Your task to perform on an android device: Open Youtube and go to "Your channel" Image 0: 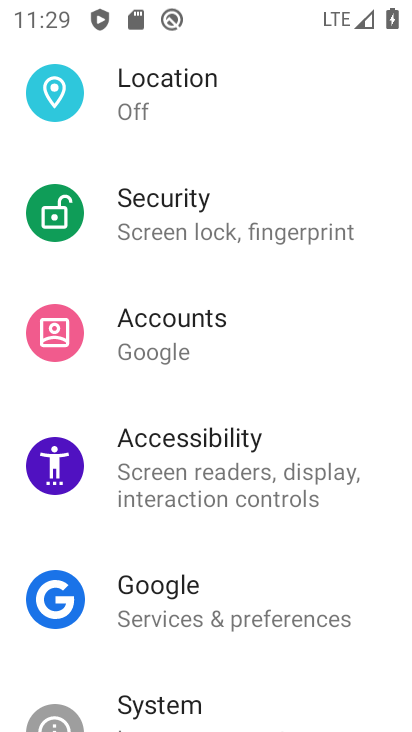
Step 0: press home button
Your task to perform on an android device: Open Youtube and go to "Your channel" Image 1: 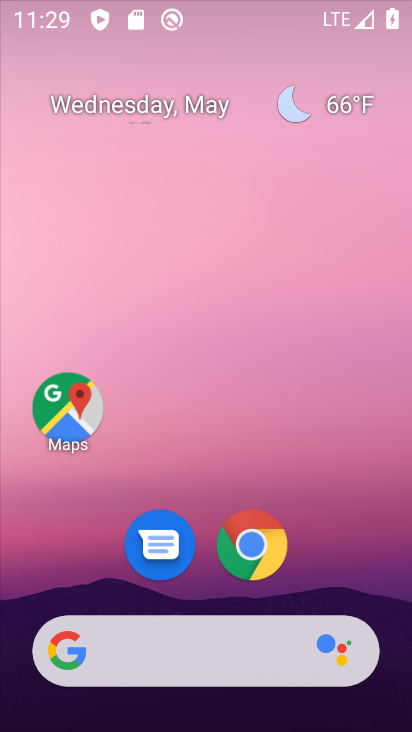
Step 1: drag from (194, 648) to (109, 133)
Your task to perform on an android device: Open Youtube and go to "Your channel" Image 2: 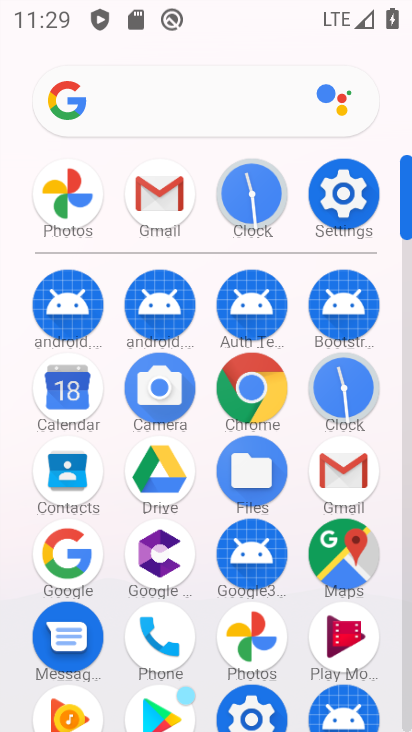
Step 2: drag from (215, 543) to (63, 29)
Your task to perform on an android device: Open Youtube and go to "Your channel" Image 3: 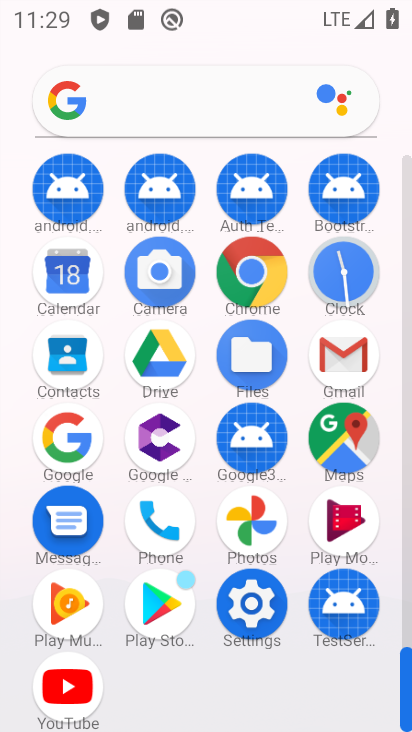
Step 3: click (52, 694)
Your task to perform on an android device: Open Youtube and go to "Your channel" Image 4: 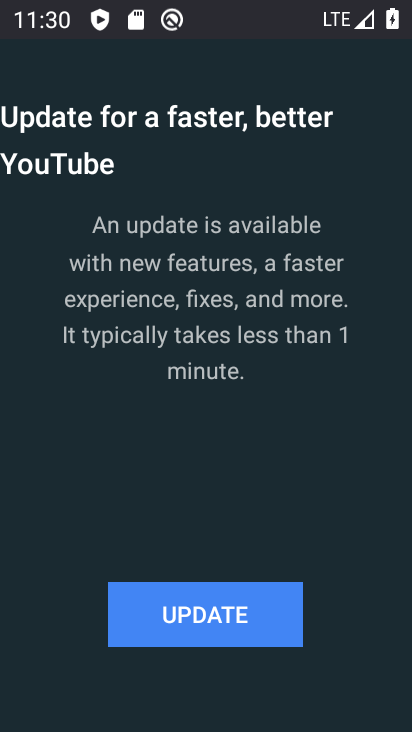
Step 4: click (206, 618)
Your task to perform on an android device: Open Youtube and go to "Your channel" Image 5: 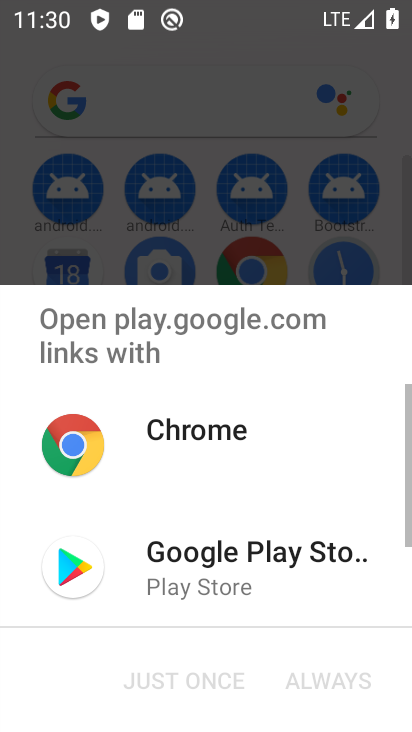
Step 5: click (239, 414)
Your task to perform on an android device: Open Youtube and go to "Your channel" Image 6: 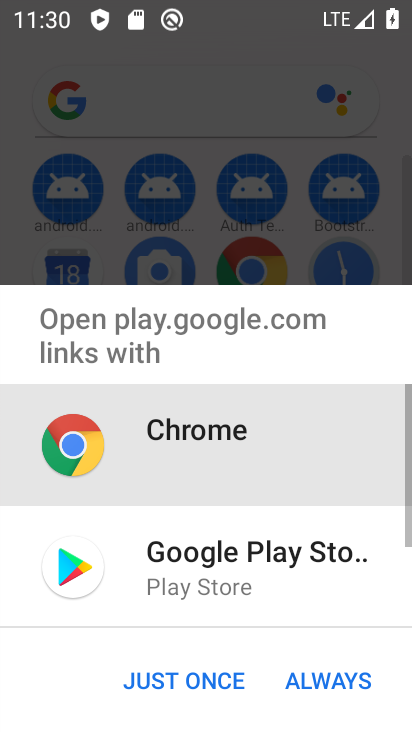
Step 6: click (332, 684)
Your task to perform on an android device: Open Youtube and go to "Your channel" Image 7: 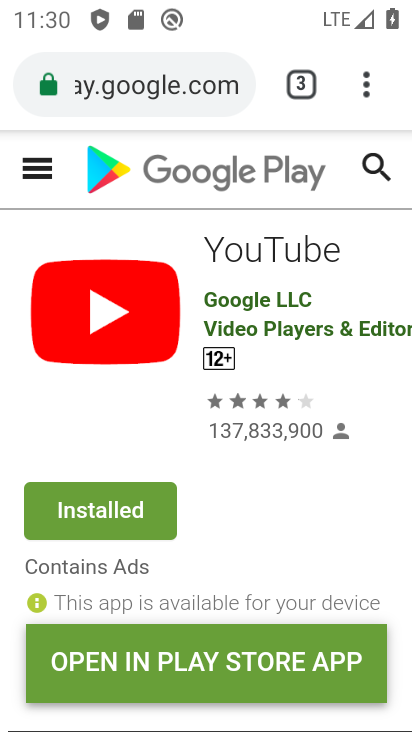
Step 7: click (272, 682)
Your task to perform on an android device: Open Youtube and go to "Your channel" Image 8: 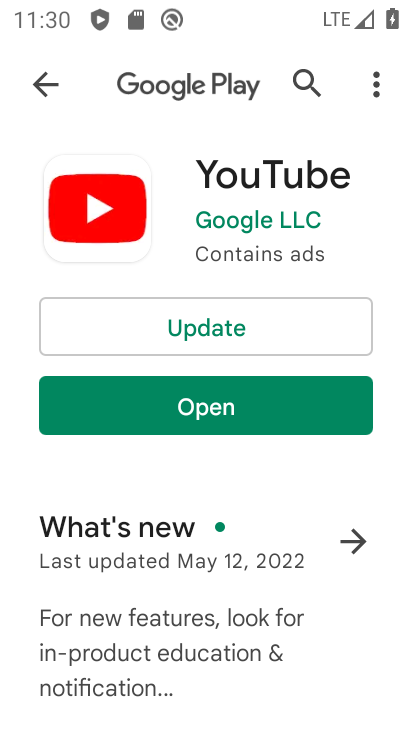
Step 8: click (210, 329)
Your task to perform on an android device: Open Youtube and go to "Your channel" Image 9: 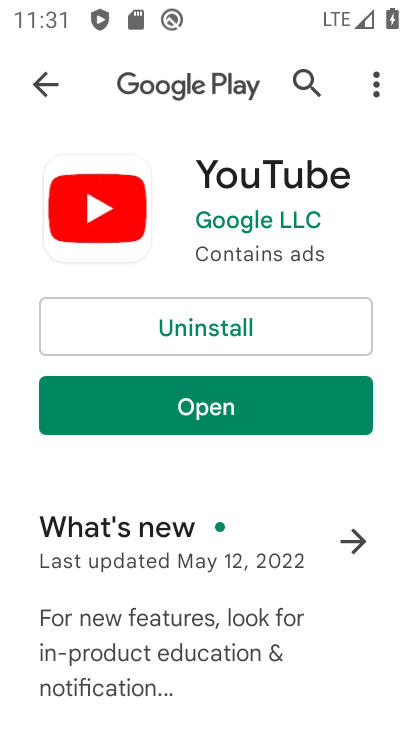
Step 9: click (316, 416)
Your task to perform on an android device: Open Youtube and go to "Your channel" Image 10: 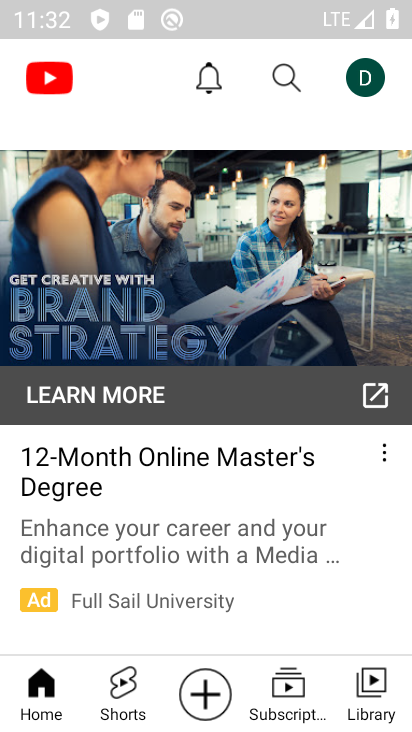
Step 10: click (351, 75)
Your task to perform on an android device: Open Youtube and go to "Your channel" Image 11: 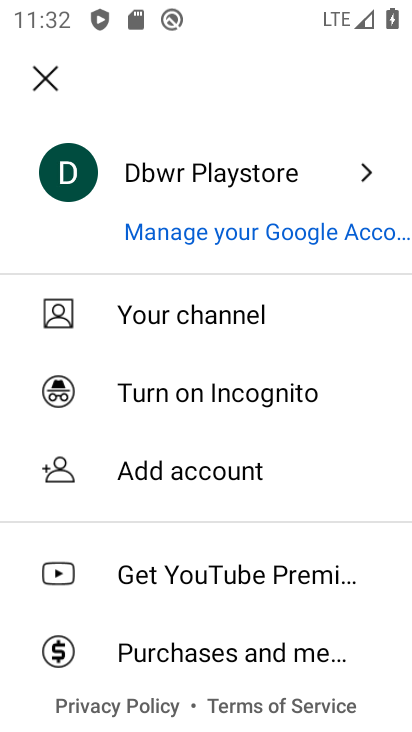
Step 11: click (239, 312)
Your task to perform on an android device: Open Youtube and go to "Your channel" Image 12: 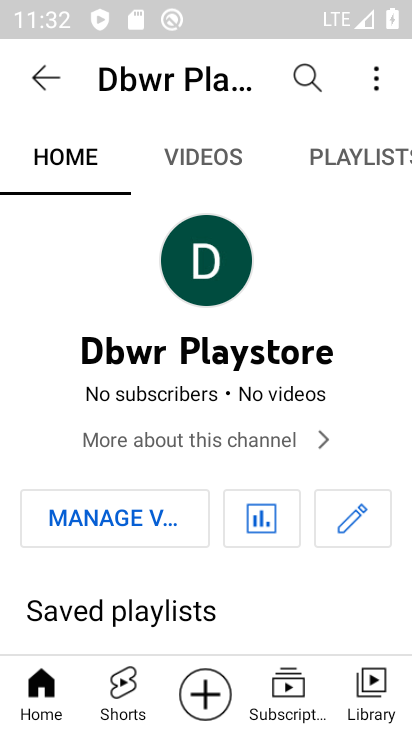
Step 12: task complete